Your task to perform on an android device: open chrome privacy settings Image 0: 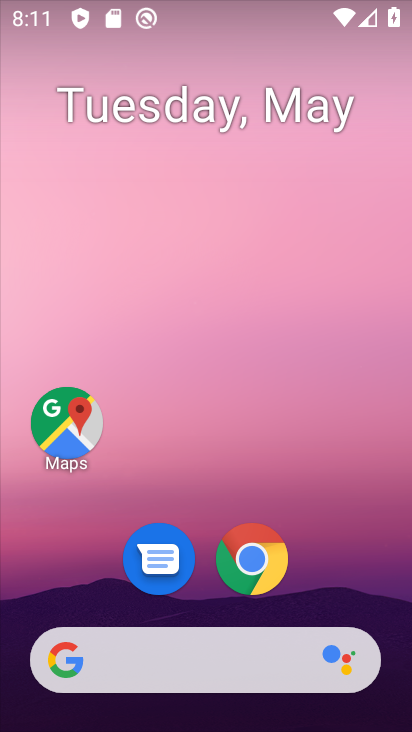
Step 0: click (248, 565)
Your task to perform on an android device: open chrome privacy settings Image 1: 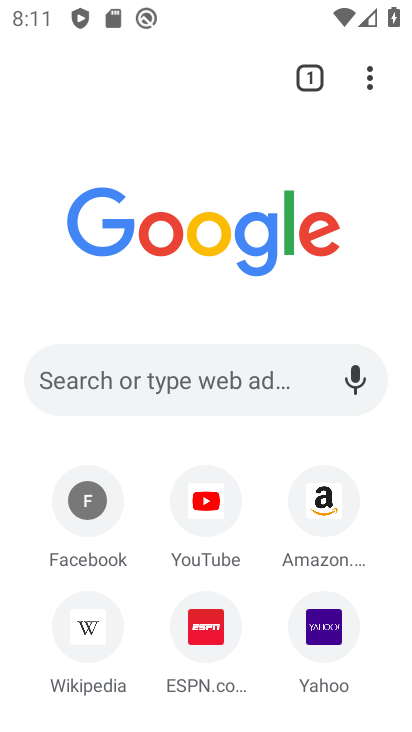
Step 1: drag from (373, 79) to (143, 604)
Your task to perform on an android device: open chrome privacy settings Image 2: 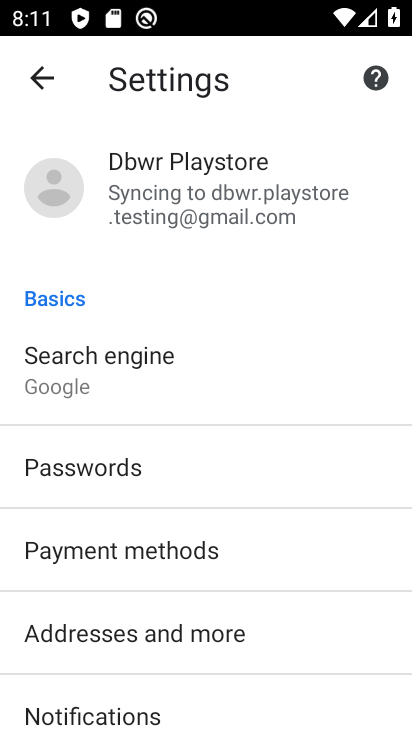
Step 2: drag from (219, 652) to (189, 235)
Your task to perform on an android device: open chrome privacy settings Image 3: 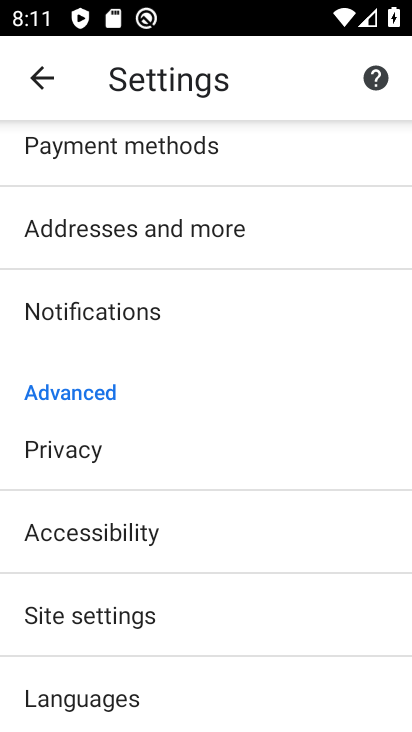
Step 3: click (30, 399)
Your task to perform on an android device: open chrome privacy settings Image 4: 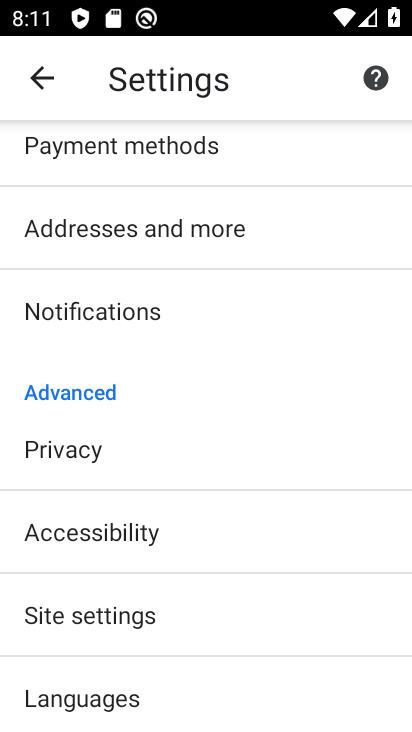
Step 4: click (66, 431)
Your task to perform on an android device: open chrome privacy settings Image 5: 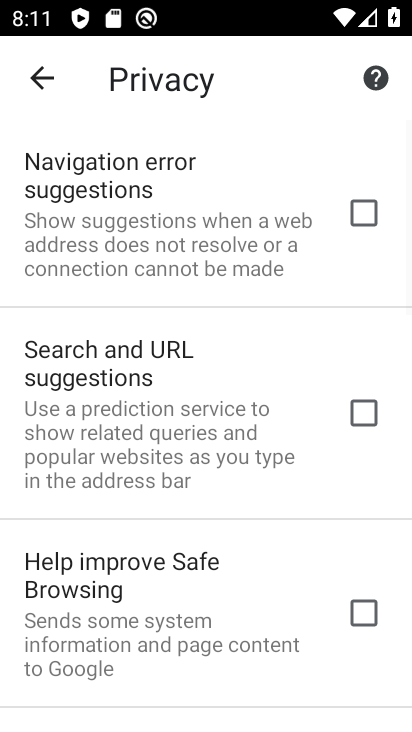
Step 5: task complete